Your task to perform on an android device: turn on the 24-hour format for clock Image 0: 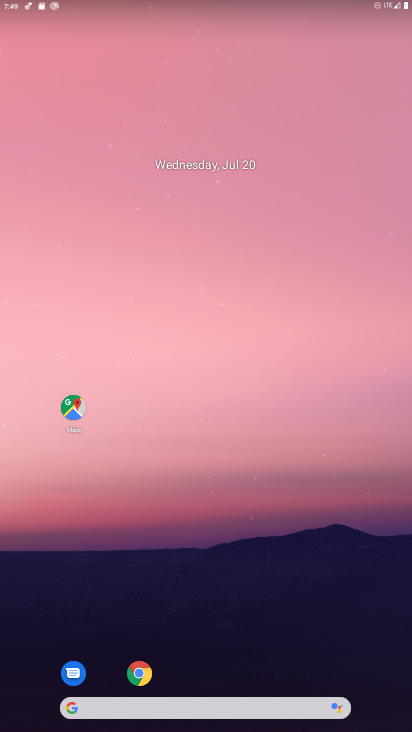
Step 0: drag from (321, 584) to (351, 61)
Your task to perform on an android device: turn on the 24-hour format for clock Image 1: 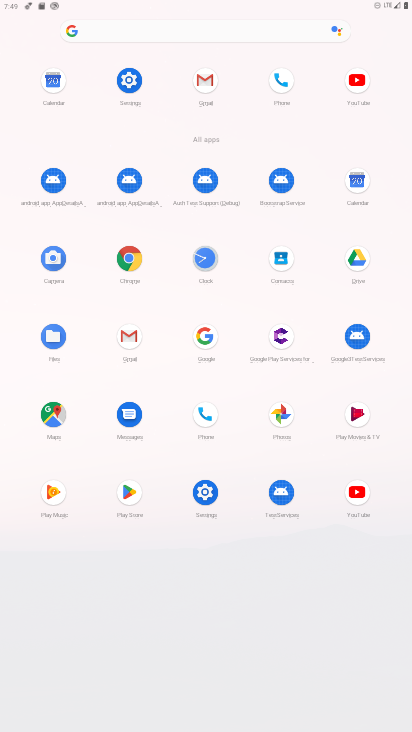
Step 1: click (213, 255)
Your task to perform on an android device: turn on the 24-hour format for clock Image 2: 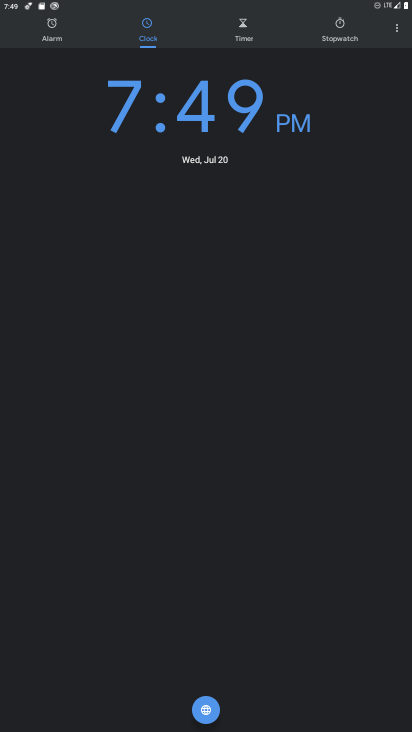
Step 2: click (391, 38)
Your task to perform on an android device: turn on the 24-hour format for clock Image 3: 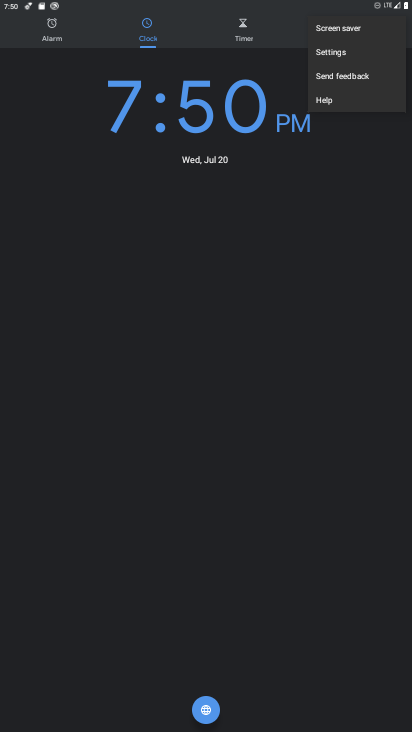
Step 3: click (336, 45)
Your task to perform on an android device: turn on the 24-hour format for clock Image 4: 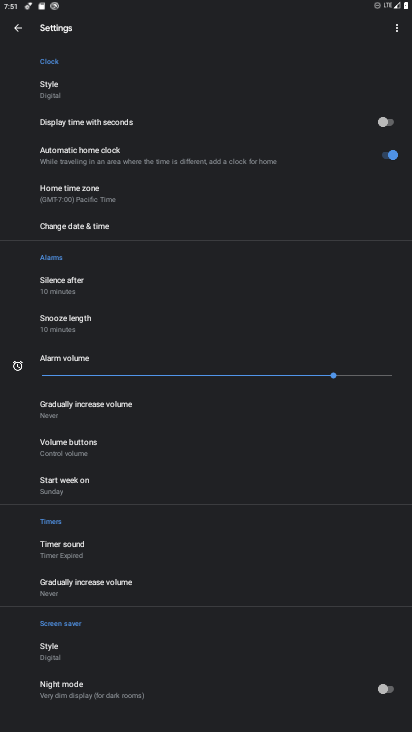
Step 4: click (84, 222)
Your task to perform on an android device: turn on the 24-hour format for clock Image 5: 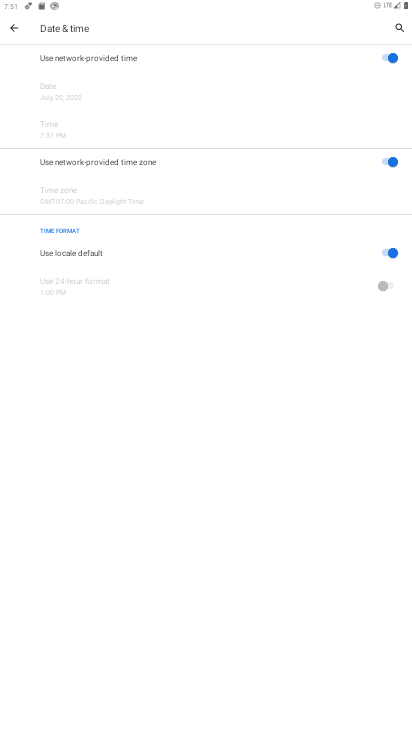
Step 5: click (388, 250)
Your task to perform on an android device: turn on the 24-hour format for clock Image 6: 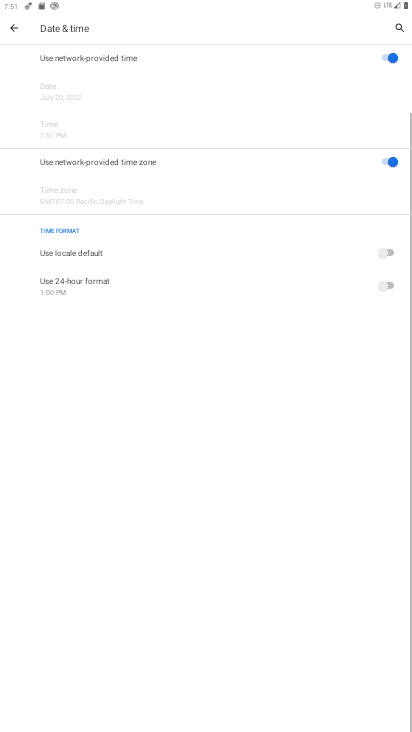
Step 6: click (392, 302)
Your task to perform on an android device: turn on the 24-hour format for clock Image 7: 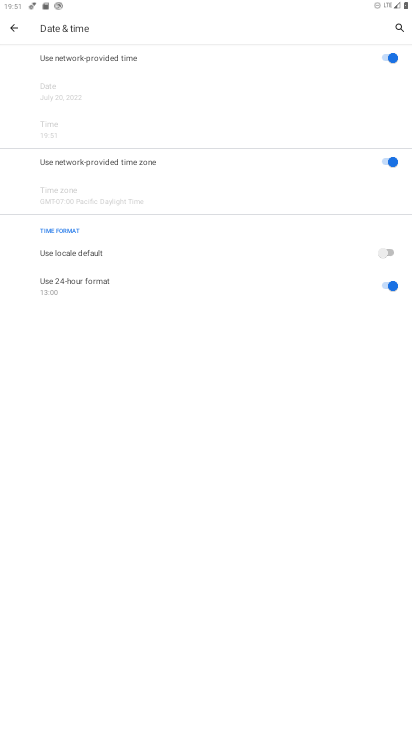
Step 7: task complete